Your task to perform on an android device: Turn on the flashlight Image 0: 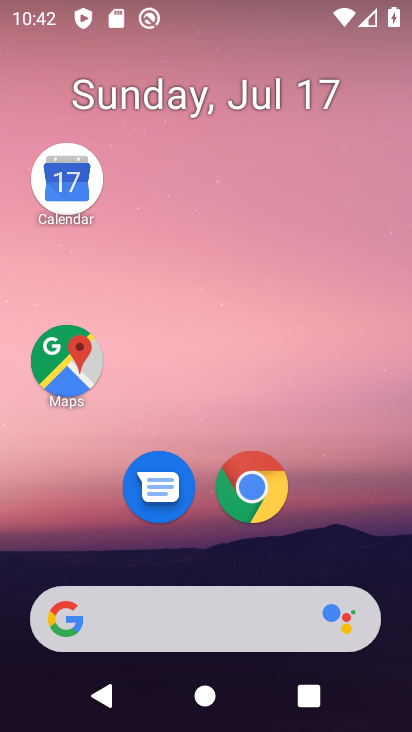
Step 0: drag from (260, 13) to (287, 336)
Your task to perform on an android device: Turn on the flashlight Image 1: 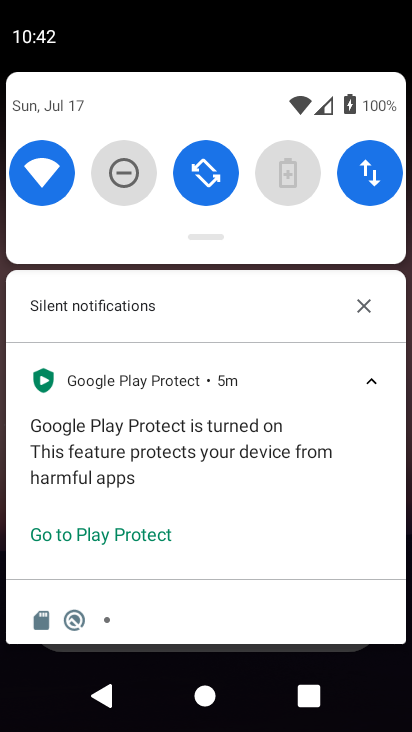
Step 1: task complete